Your task to perform on an android device: Go to Reddit.com Image 0: 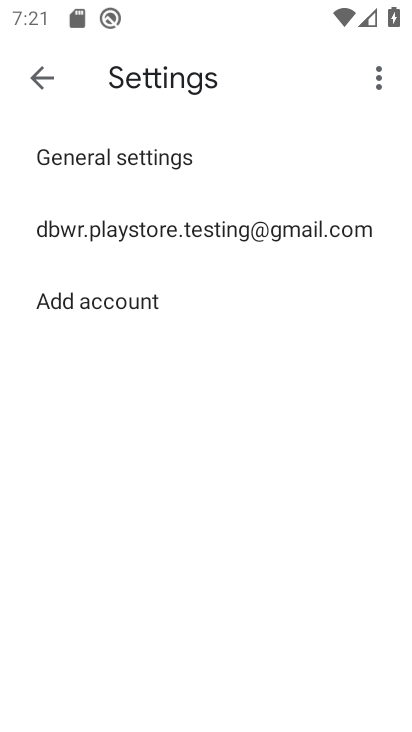
Step 0: press home button
Your task to perform on an android device: Go to Reddit.com Image 1: 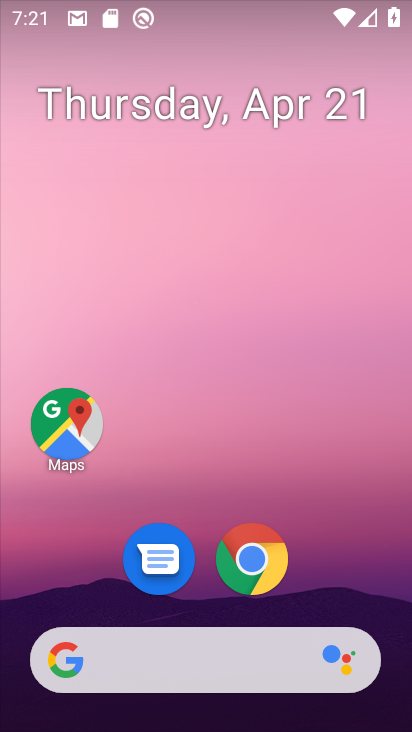
Step 1: drag from (368, 574) to (371, 132)
Your task to perform on an android device: Go to Reddit.com Image 2: 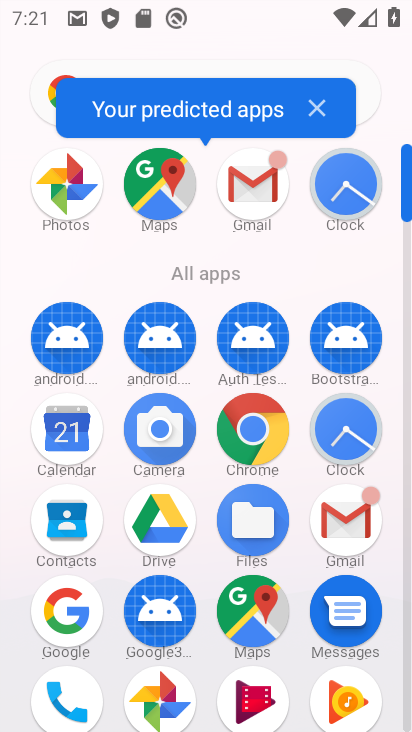
Step 2: click (274, 428)
Your task to perform on an android device: Go to Reddit.com Image 3: 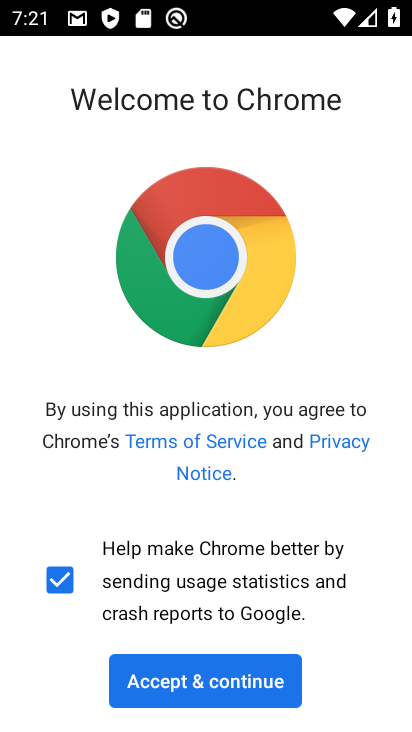
Step 3: click (210, 693)
Your task to perform on an android device: Go to Reddit.com Image 4: 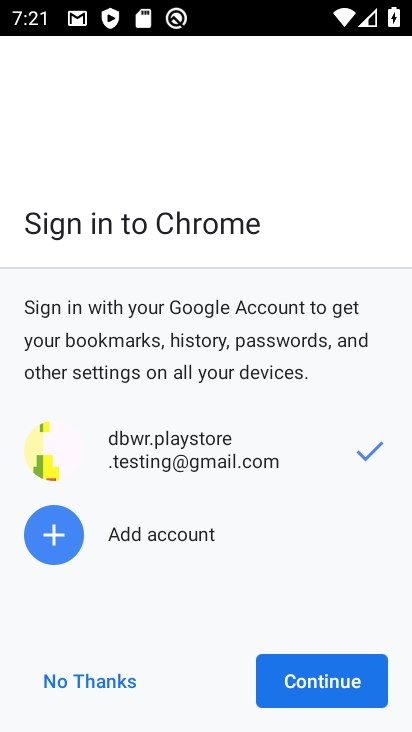
Step 4: click (323, 689)
Your task to perform on an android device: Go to Reddit.com Image 5: 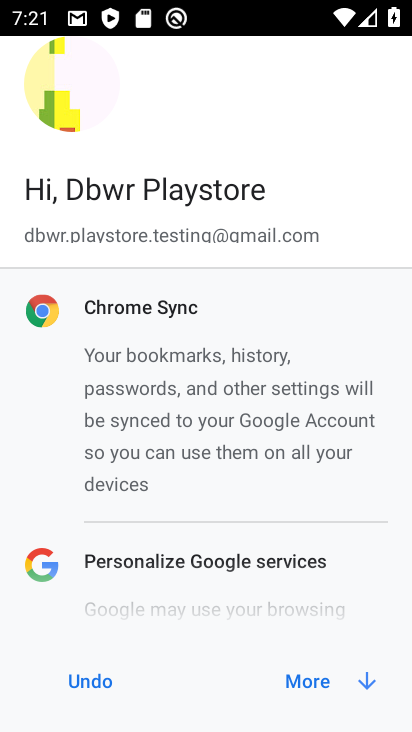
Step 5: click (324, 687)
Your task to perform on an android device: Go to Reddit.com Image 6: 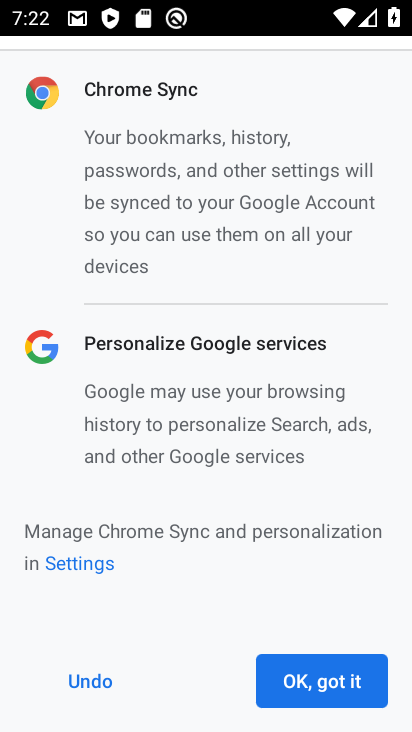
Step 6: click (324, 687)
Your task to perform on an android device: Go to Reddit.com Image 7: 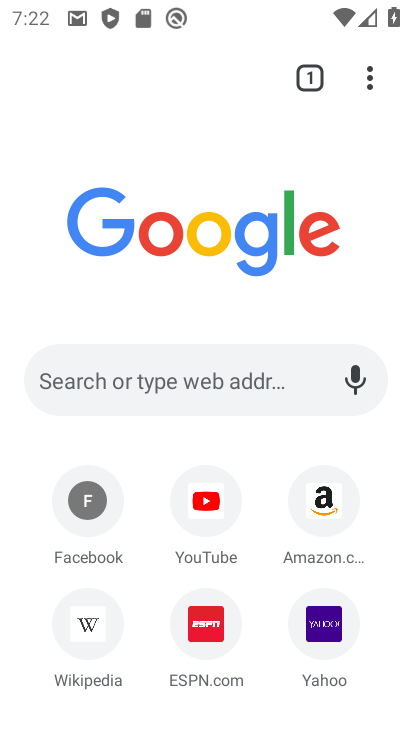
Step 7: click (238, 365)
Your task to perform on an android device: Go to Reddit.com Image 8: 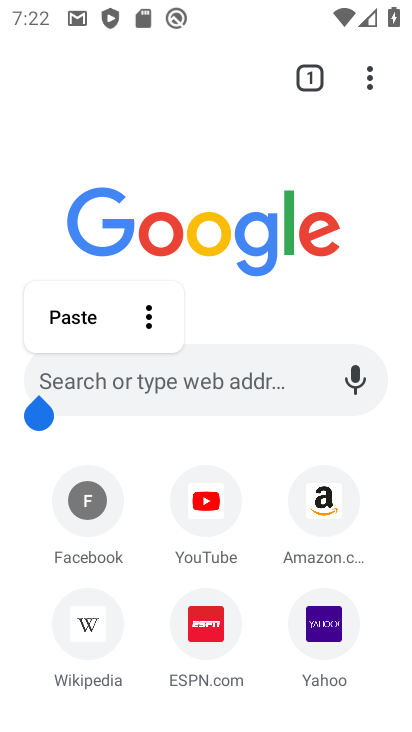
Step 8: click (147, 380)
Your task to perform on an android device: Go to Reddit.com Image 9: 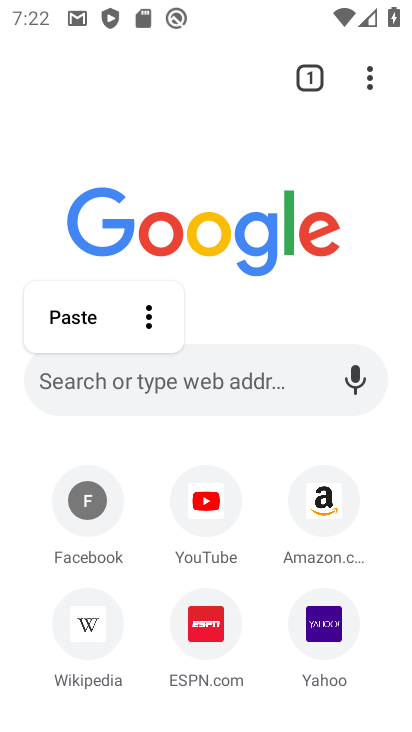
Step 9: type "re"
Your task to perform on an android device: Go to Reddit.com Image 10: 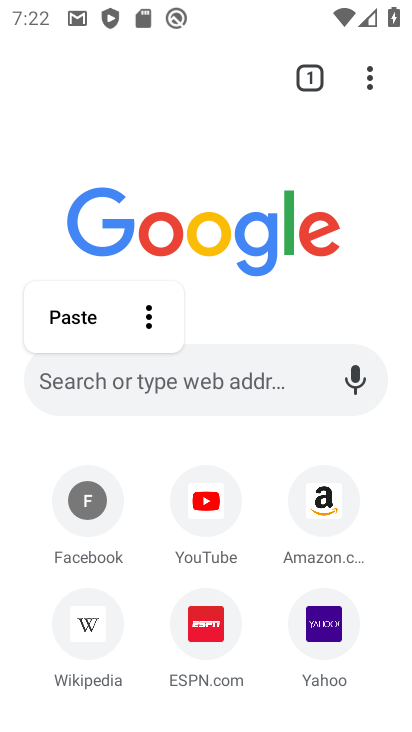
Step 10: click (206, 388)
Your task to perform on an android device: Go to Reddit.com Image 11: 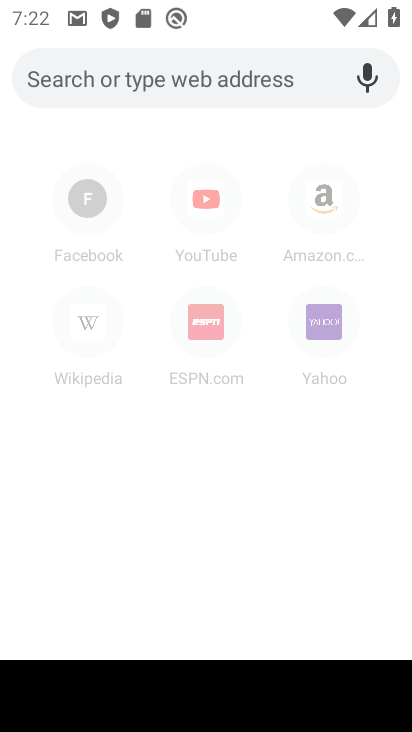
Step 11: type "reddit.com"
Your task to perform on an android device: Go to Reddit.com Image 12: 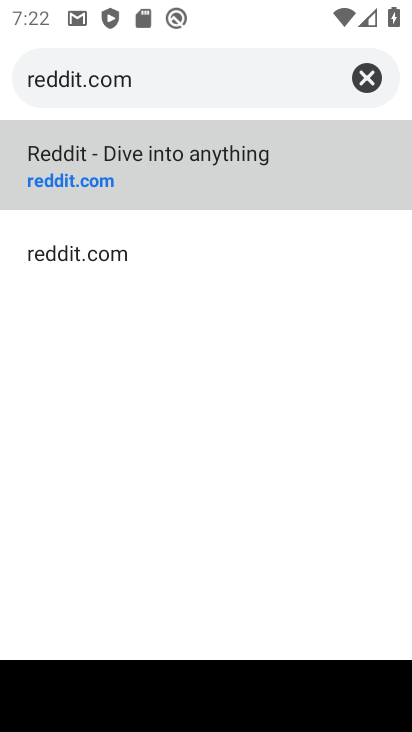
Step 12: click (47, 155)
Your task to perform on an android device: Go to Reddit.com Image 13: 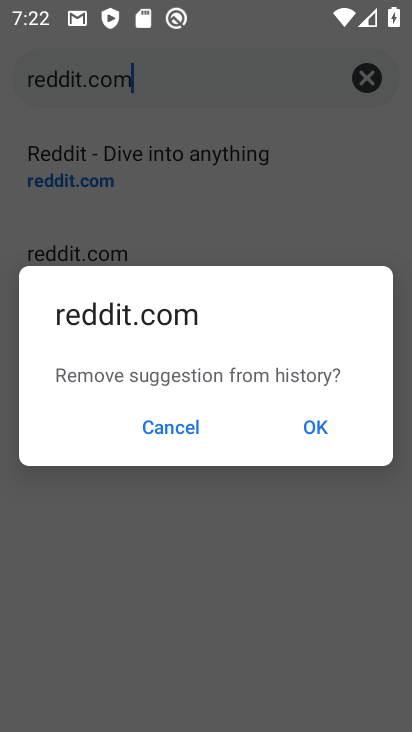
Step 13: click (164, 428)
Your task to perform on an android device: Go to Reddit.com Image 14: 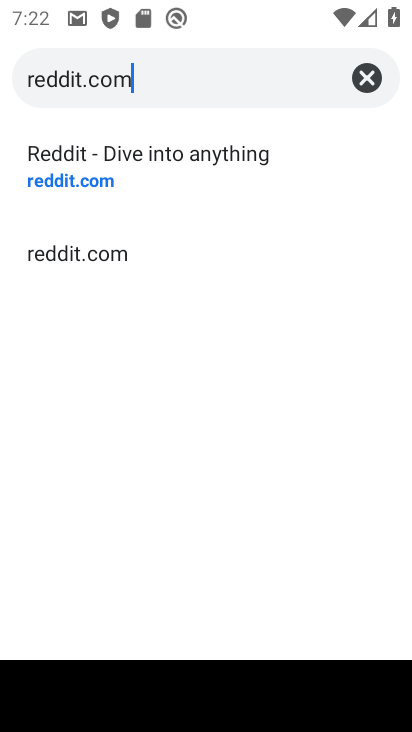
Step 14: click (53, 181)
Your task to perform on an android device: Go to Reddit.com Image 15: 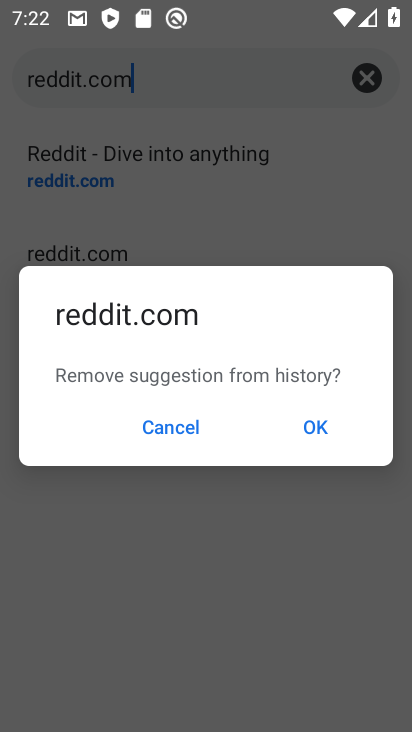
Step 15: click (185, 421)
Your task to perform on an android device: Go to Reddit.com Image 16: 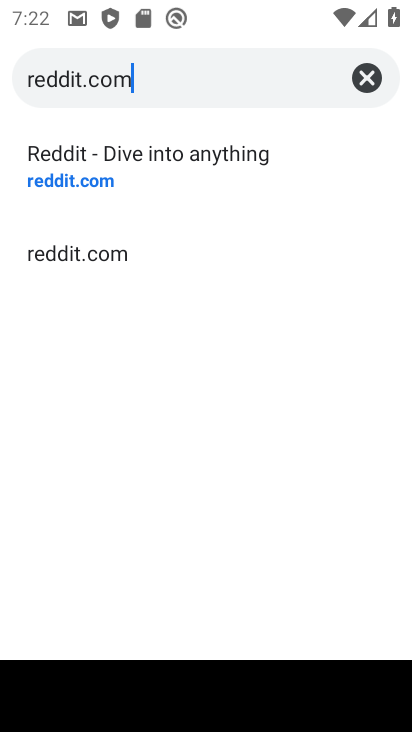
Step 16: click (85, 254)
Your task to perform on an android device: Go to Reddit.com Image 17: 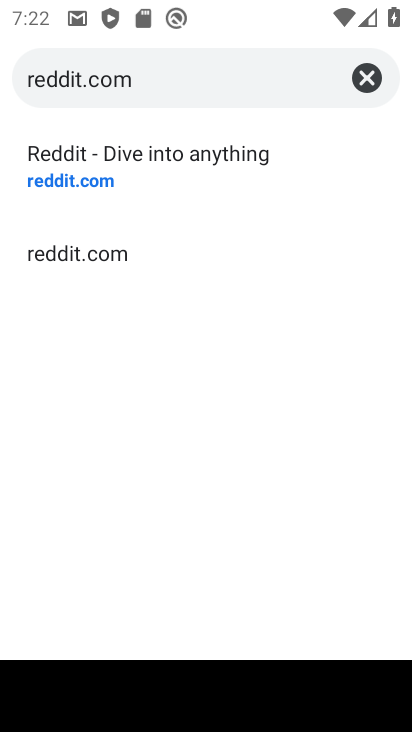
Step 17: click (86, 255)
Your task to perform on an android device: Go to Reddit.com Image 18: 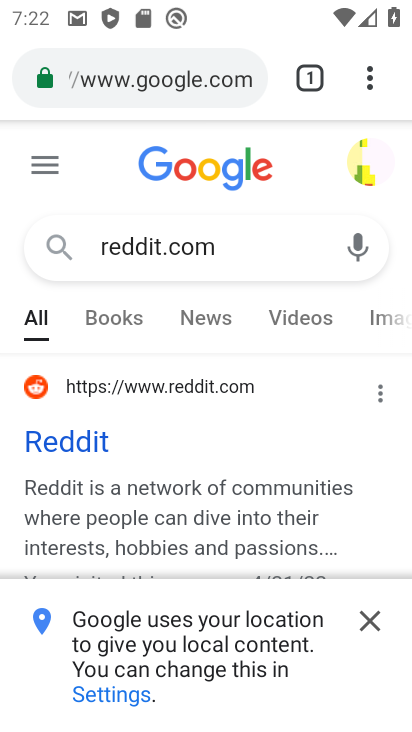
Step 18: click (368, 620)
Your task to perform on an android device: Go to Reddit.com Image 19: 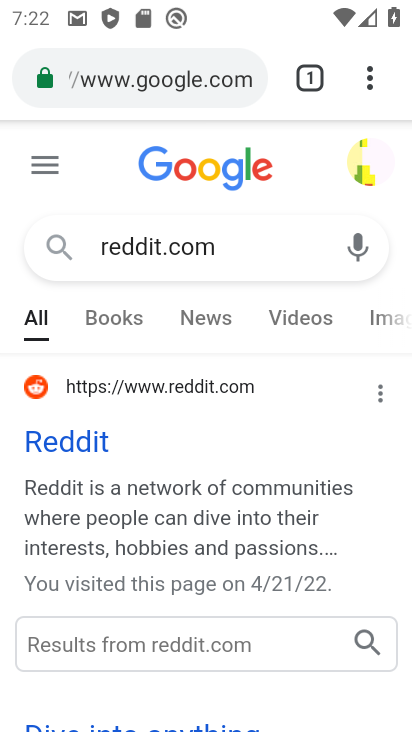
Step 19: click (64, 436)
Your task to perform on an android device: Go to Reddit.com Image 20: 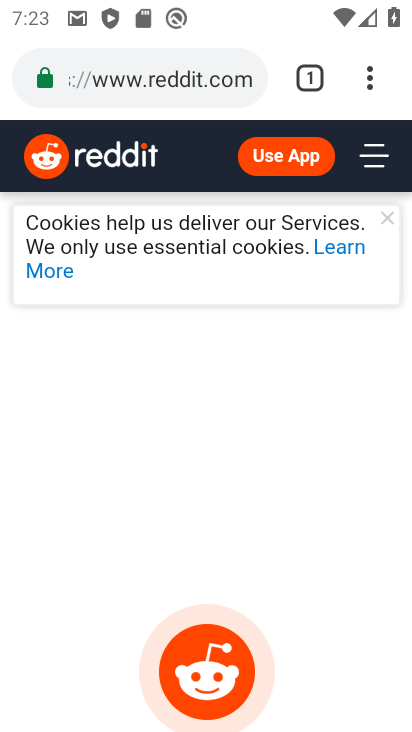
Step 20: task complete